Your task to perform on an android device: Open Youtube and go to the subscriptions tab Image 0: 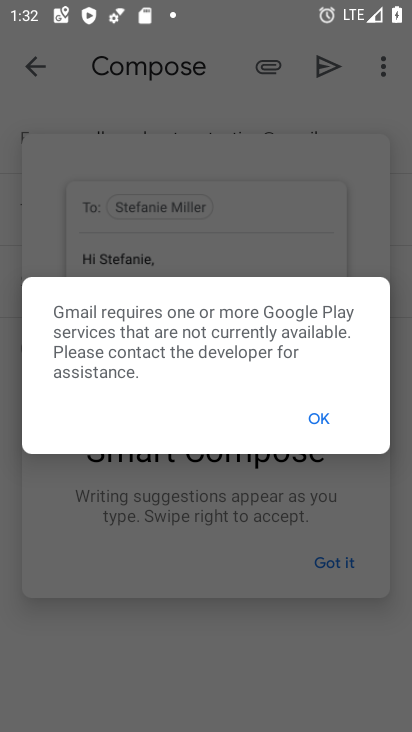
Step 0: press home button
Your task to perform on an android device: Open Youtube and go to the subscriptions tab Image 1: 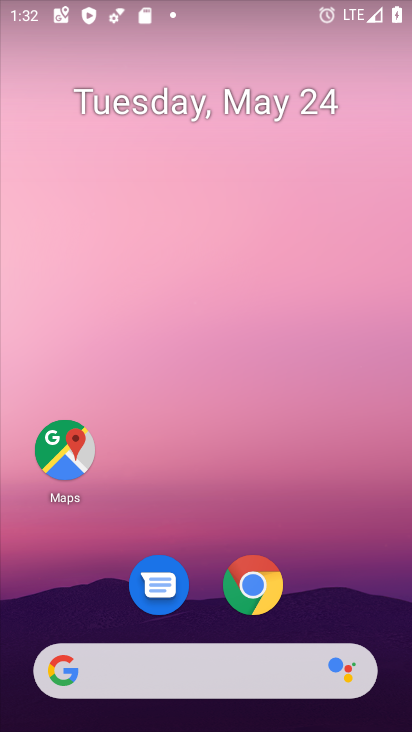
Step 1: drag from (252, 519) to (300, 54)
Your task to perform on an android device: Open Youtube and go to the subscriptions tab Image 2: 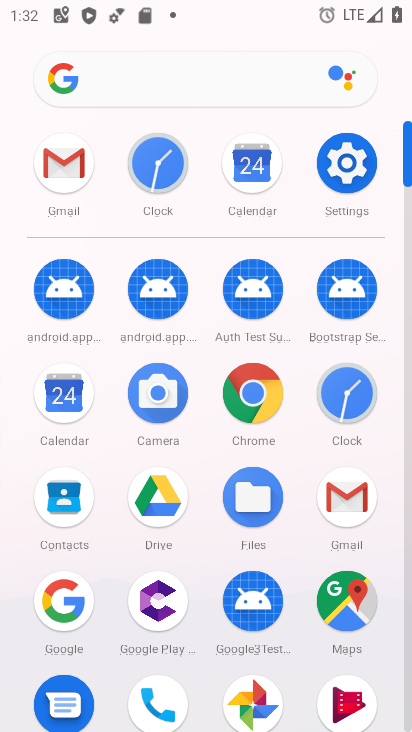
Step 2: drag from (204, 485) to (220, 120)
Your task to perform on an android device: Open Youtube and go to the subscriptions tab Image 3: 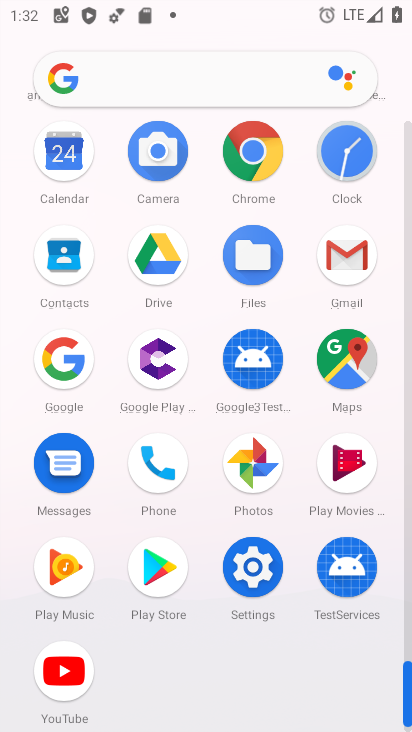
Step 3: click (76, 652)
Your task to perform on an android device: Open Youtube and go to the subscriptions tab Image 4: 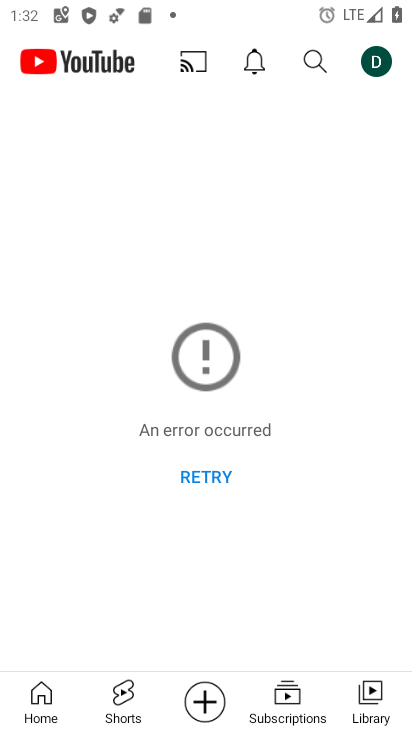
Step 4: click (300, 695)
Your task to perform on an android device: Open Youtube and go to the subscriptions tab Image 5: 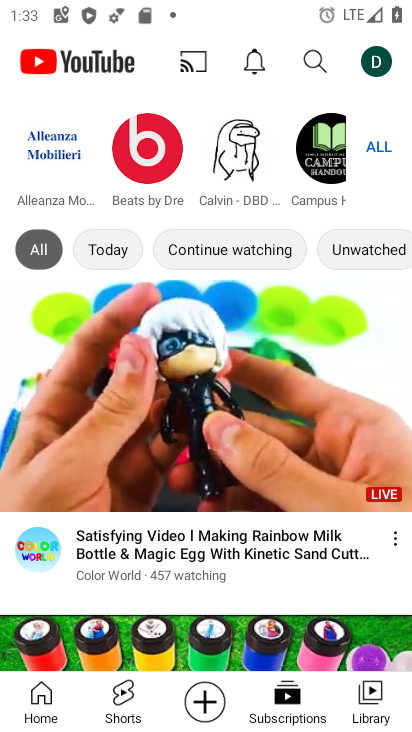
Step 5: task complete